Your task to perform on an android device: change notifications settings Image 0: 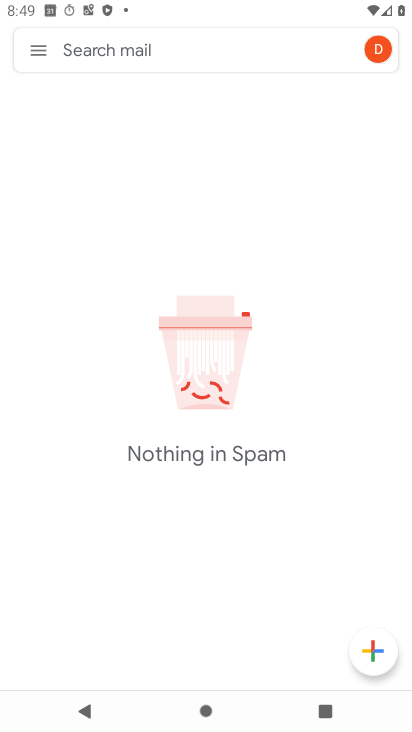
Step 0: press home button
Your task to perform on an android device: change notifications settings Image 1: 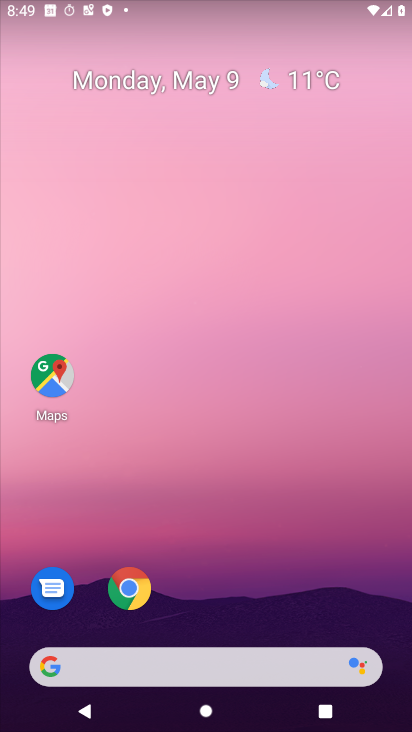
Step 1: drag from (135, 671) to (364, 34)
Your task to perform on an android device: change notifications settings Image 2: 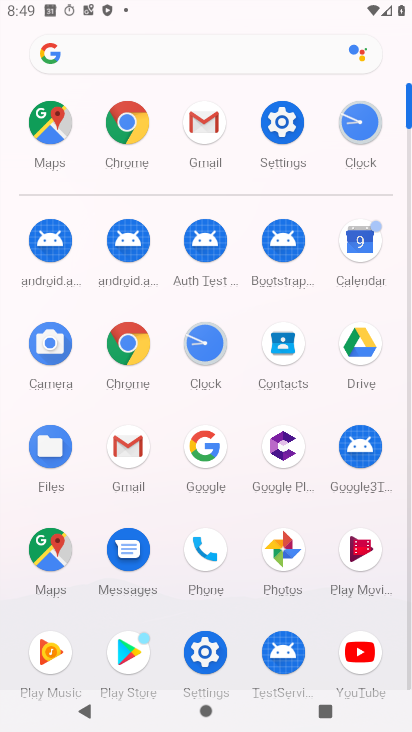
Step 2: click (278, 119)
Your task to perform on an android device: change notifications settings Image 3: 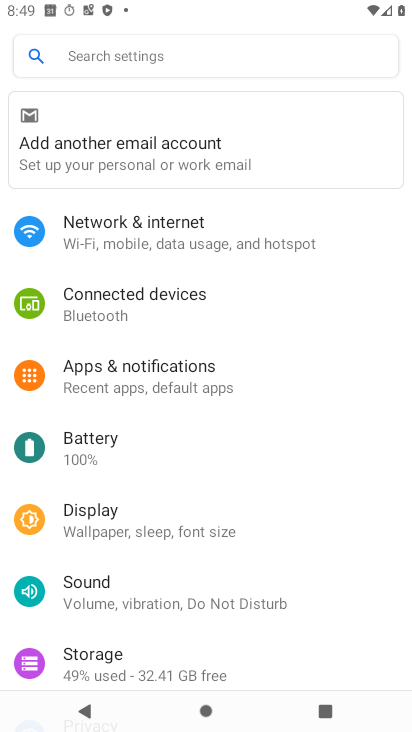
Step 3: click (172, 378)
Your task to perform on an android device: change notifications settings Image 4: 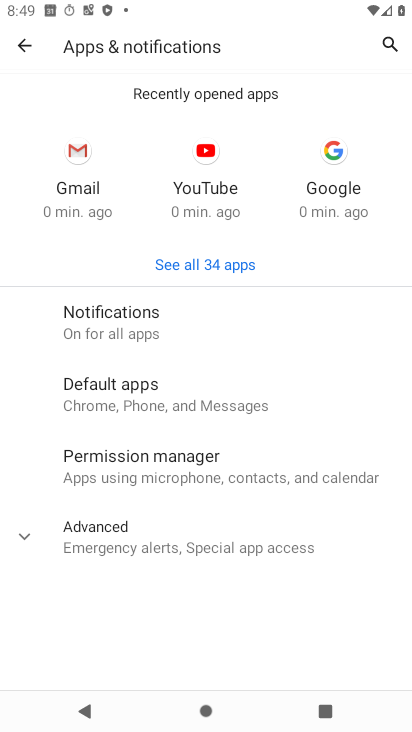
Step 4: click (121, 328)
Your task to perform on an android device: change notifications settings Image 5: 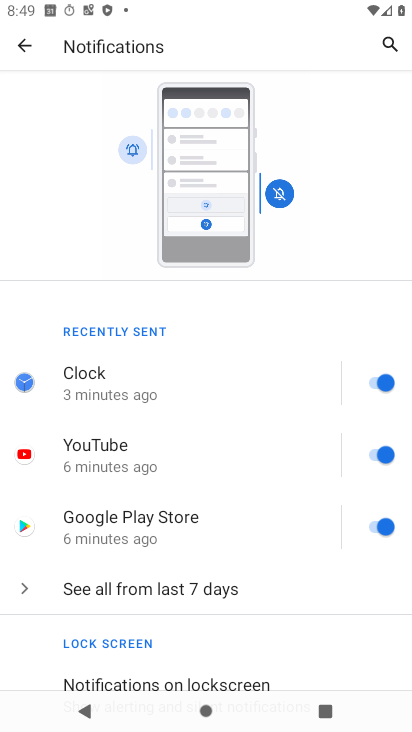
Step 5: click (375, 382)
Your task to perform on an android device: change notifications settings Image 6: 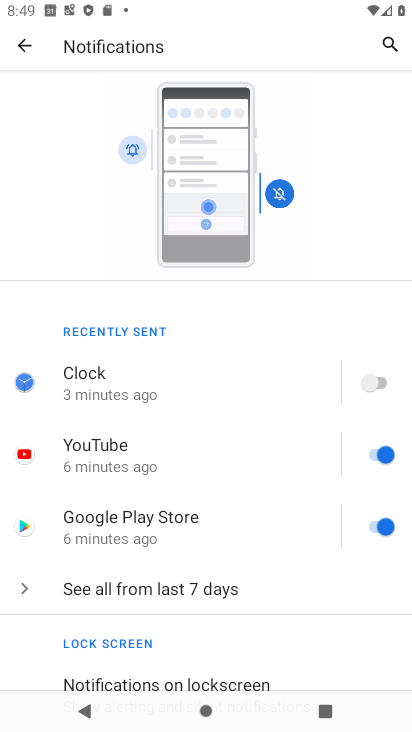
Step 6: task complete